Your task to perform on an android device: turn on javascript in the chrome app Image 0: 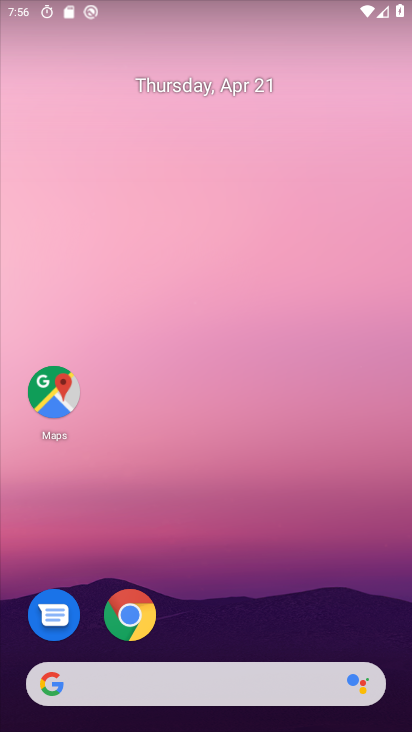
Step 0: press home button
Your task to perform on an android device: turn on javascript in the chrome app Image 1: 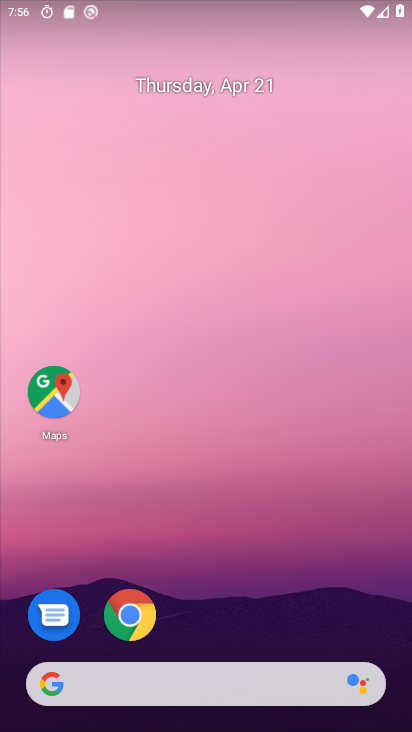
Step 1: drag from (116, 679) to (260, 162)
Your task to perform on an android device: turn on javascript in the chrome app Image 2: 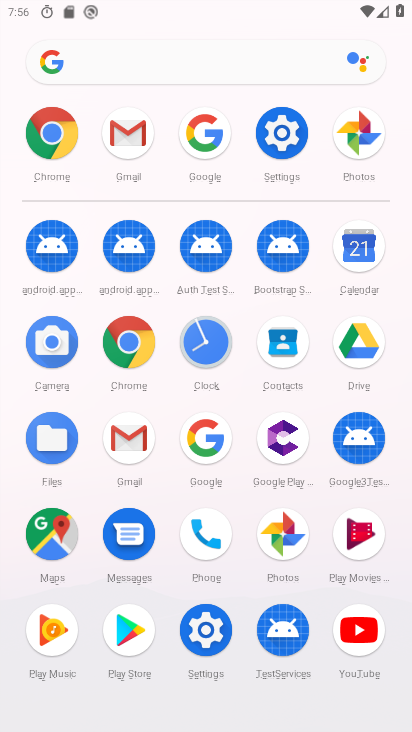
Step 2: click (62, 137)
Your task to perform on an android device: turn on javascript in the chrome app Image 3: 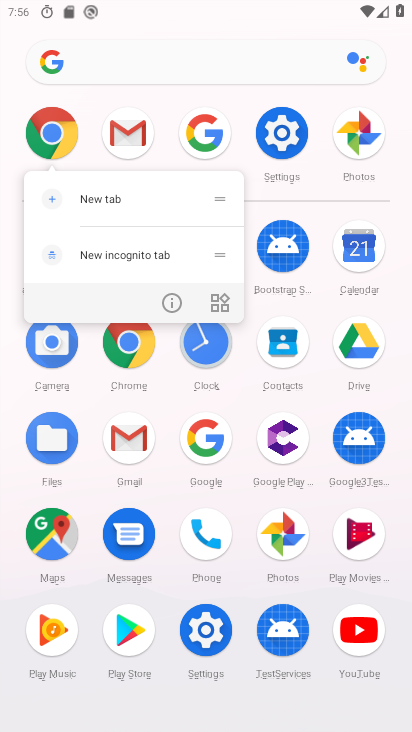
Step 3: click (56, 138)
Your task to perform on an android device: turn on javascript in the chrome app Image 4: 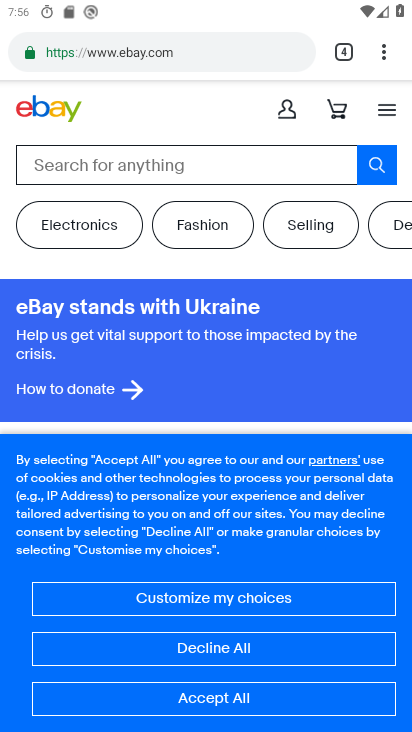
Step 4: click (381, 62)
Your task to perform on an android device: turn on javascript in the chrome app Image 5: 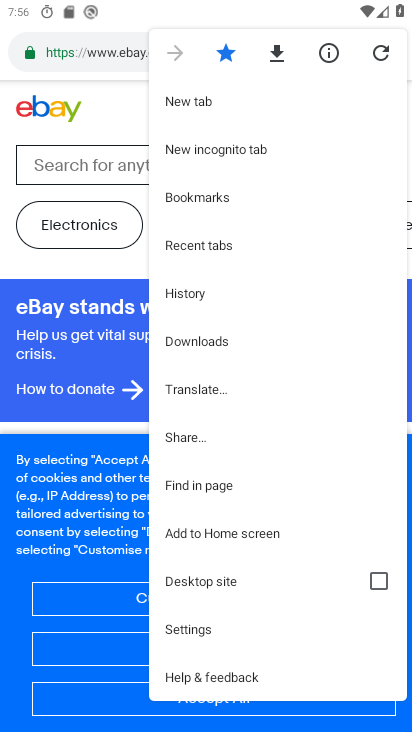
Step 5: click (197, 629)
Your task to perform on an android device: turn on javascript in the chrome app Image 6: 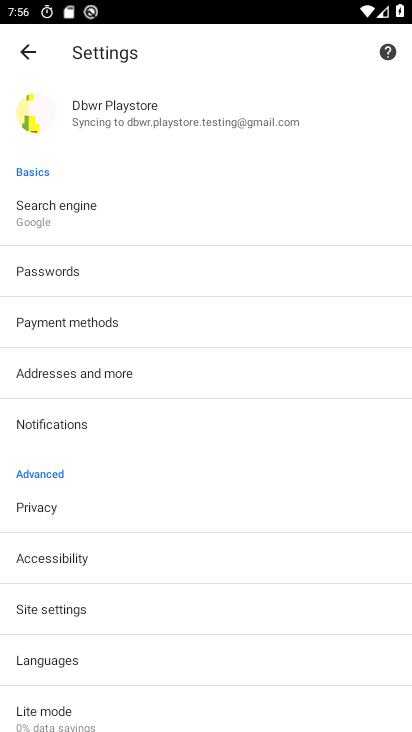
Step 6: click (69, 612)
Your task to perform on an android device: turn on javascript in the chrome app Image 7: 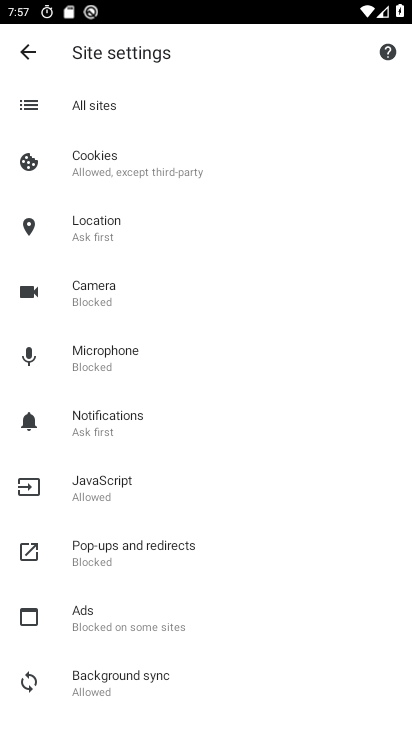
Step 7: click (87, 495)
Your task to perform on an android device: turn on javascript in the chrome app Image 8: 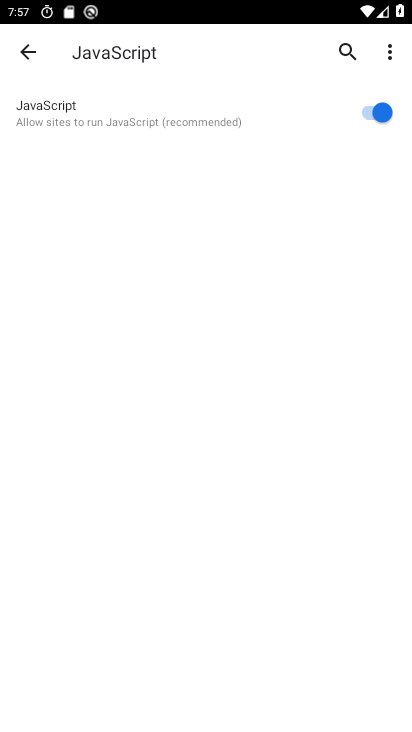
Step 8: task complete